Your task to perform on an android device: turn off location Image 0: 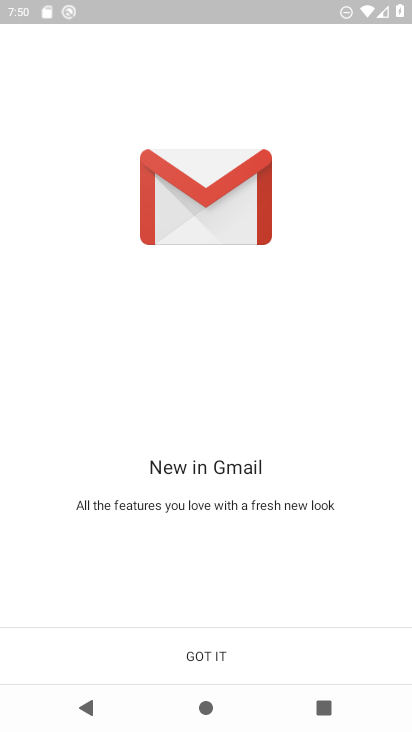
Step 0: press back button
Your task to perform on an android device: turn off location Image 1: 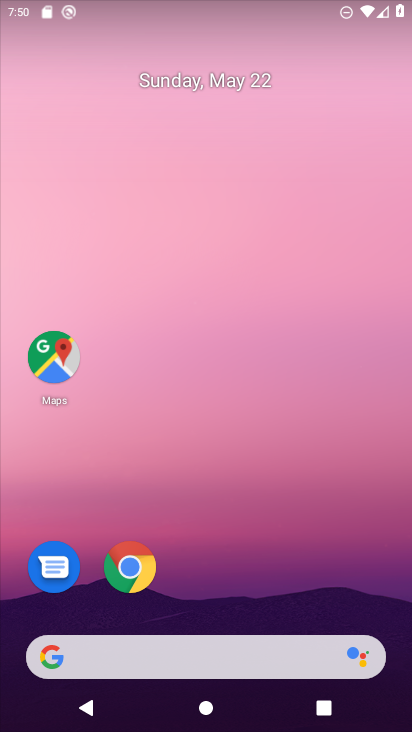
Step 1: drag from (229, 605) to (334, 6)
Your task to perform on an android device: turn off location Image 2: 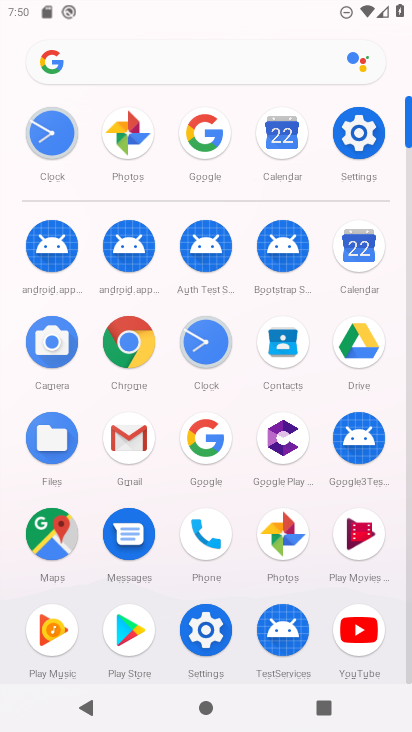
Step 2: click (361, 142)
Your task to perform on an android device: turn off location Image 3: 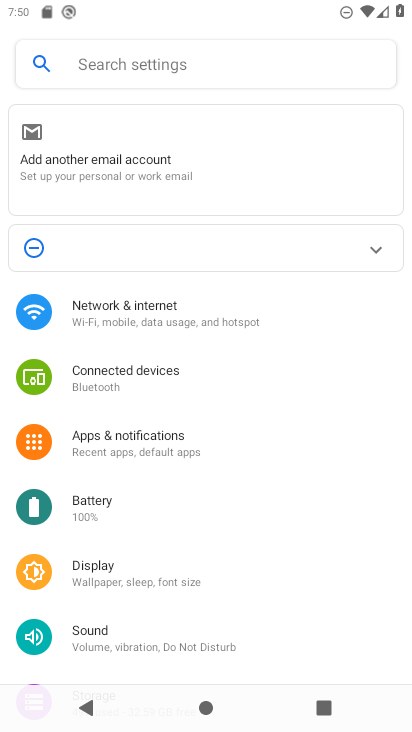
Step 3: drag from (201, 205) to (226, 54)
Your task to perform on an android device: turn off location Image 4: 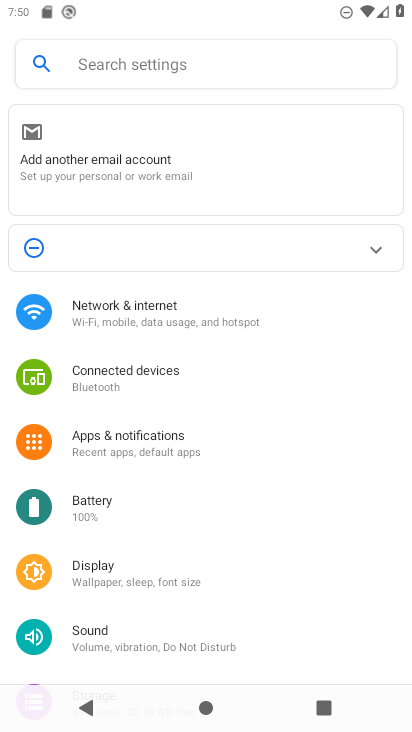
Step 4: drag from (181, 312) to (216, 165)
Your task to perform on an android device: turn off location Image 5: 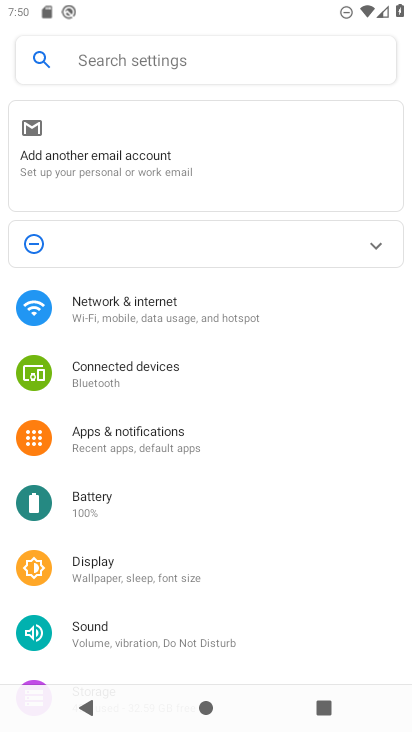
Step 5: drag from (322, 512) to (330, 194)
Your task to perform on an android device: turn off location Image 6: 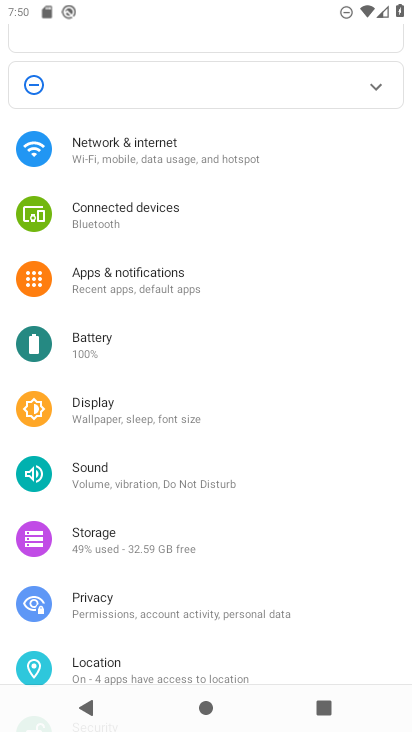
Step 6: click (116, 671)
Your task to perform on an android device: turn off location Image 7: 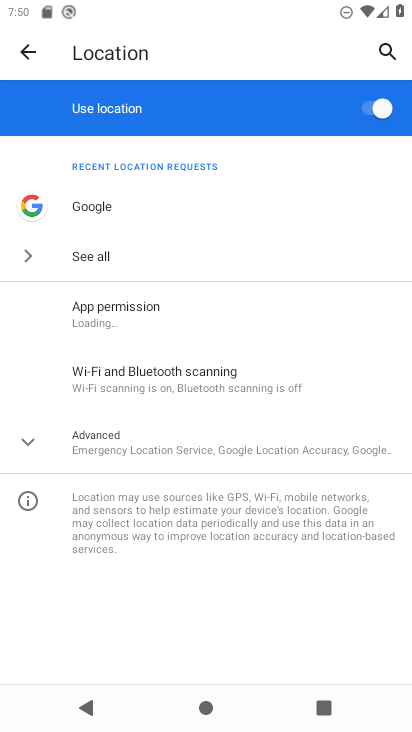
Step 7: click (384, 98)
Your task to perform on an android device: turn off location Image 8: 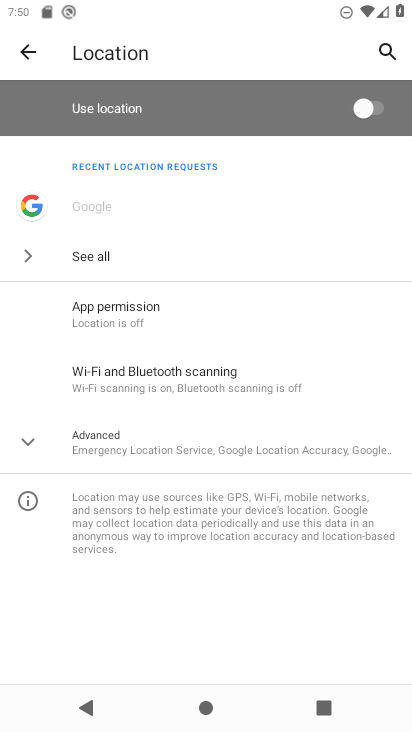
Step 8: task complete